Your task to perform on an android device: Show me popular games on the Play Store Image 0: 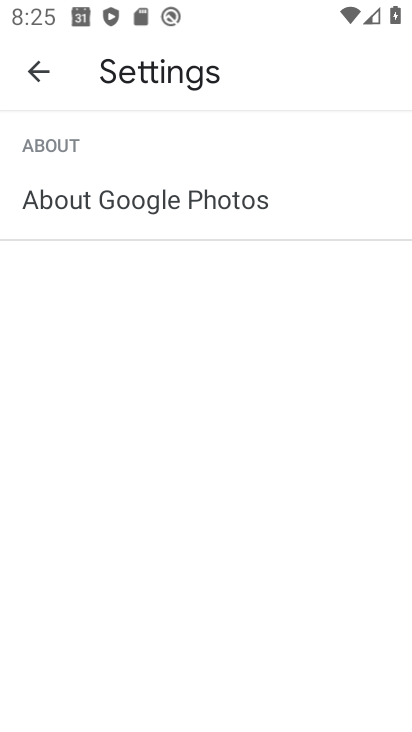
Step 0: press home button
Your task to perform on an android device: Show me popular games on the Play Store Image 1: 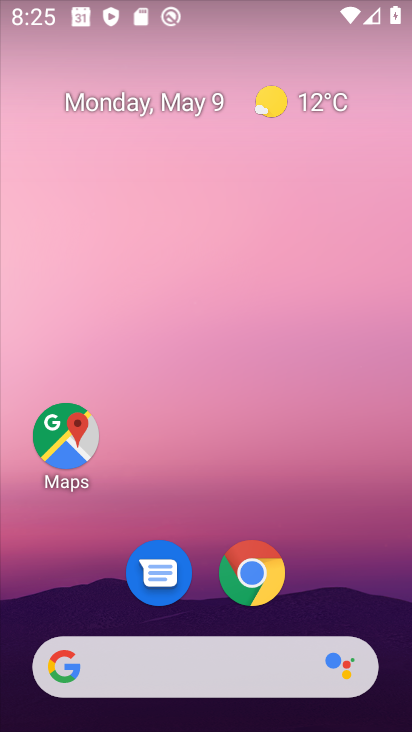
Step 1: drag from (250, 651) to (219, 276)
Your task to perform on an android device: Show me popular games on the Play Store Image 2: 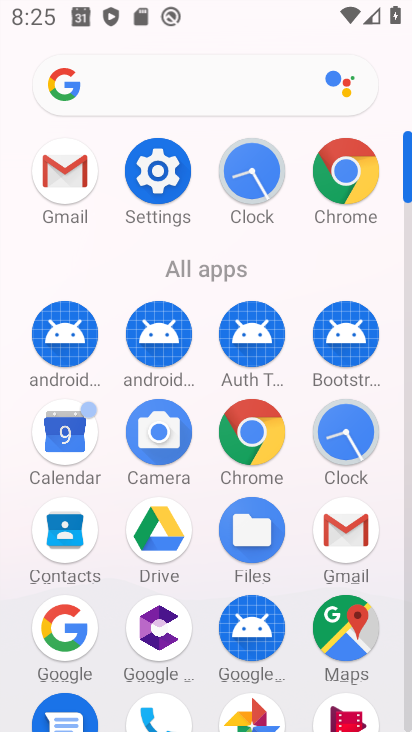
Step 2: drag from (272, 561) to (271, 329)
Your task to perform on an android device: Show me popular games on the Play Store Image 3: 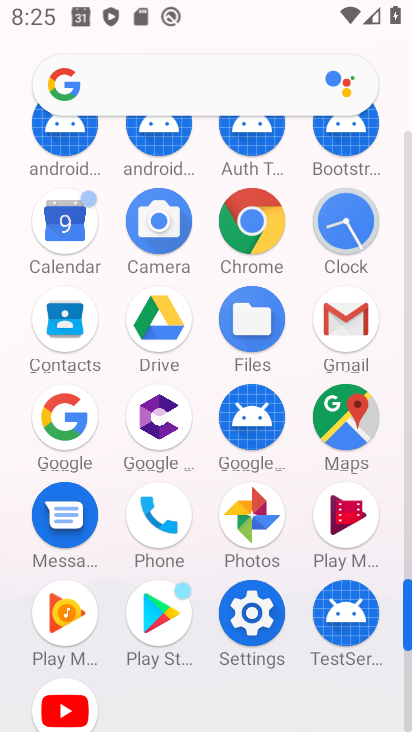
Step 3: click (175, 629)
Your task to perform on an android device: Show me popular games on the Play Store Image 4: 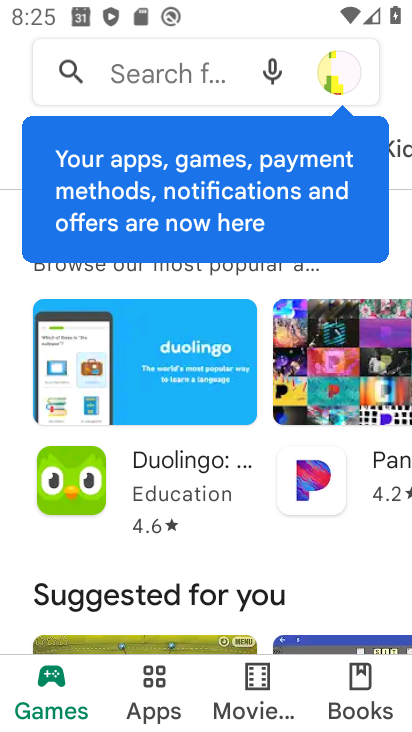
Step 4: task complete